Your task to perform on an android device: Do I have any events tomorrow? Image 0: 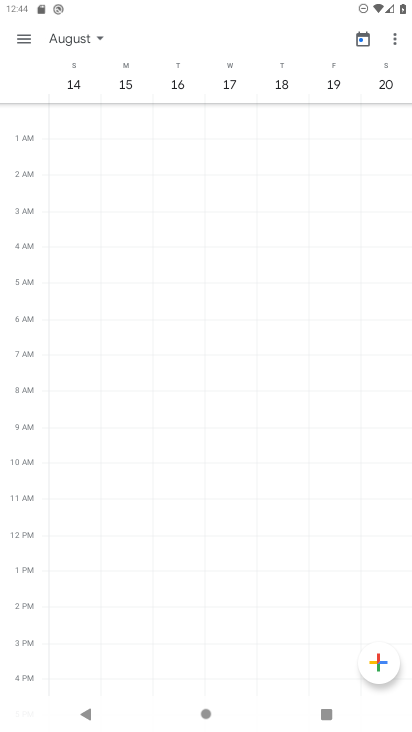
Step 0: press home button
Your task to perform on an android device: Do I have any events tomorrow? Image 1: 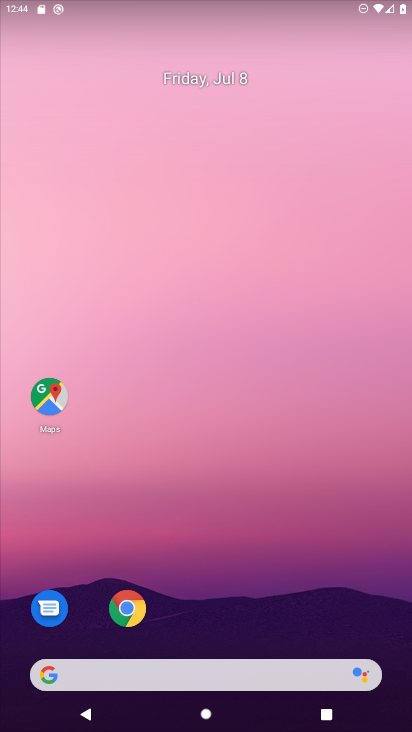
Step 1: drag from (246, 728) to (249, 91)
Your task to perform on an android device: Do I have any events tomorrow? Image 2: 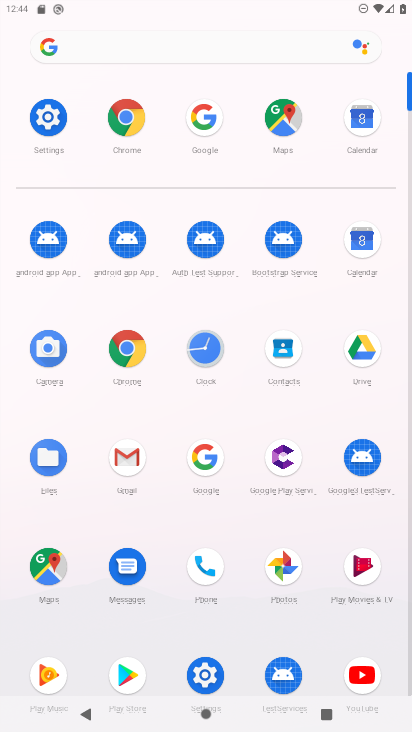
Step 2: click (365, 240)
Your task to perform on an android device: Do I have any events tomorrow? Image 3: 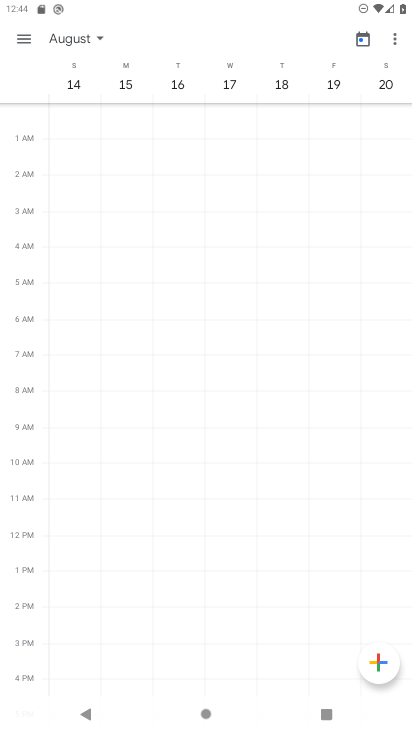
Step 3: click (97, 38)
Your task to perform on an android device: Do I have any events tomorrow? Image 4: 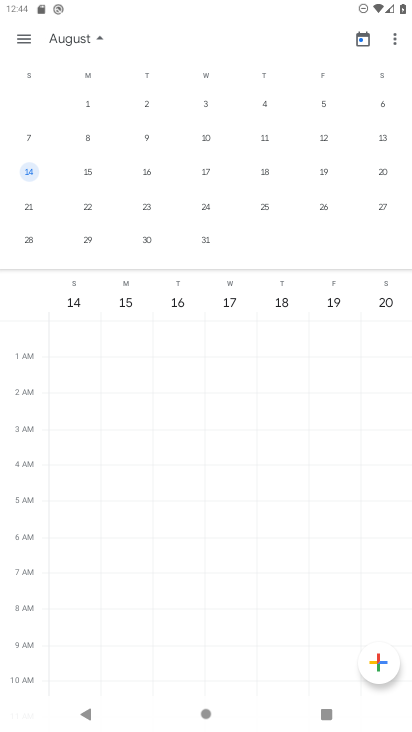
Step 4: drag from (28, 139) to (380, 138)
Your task to perform on an android device: Do I have any events tomorrow? Image 5: 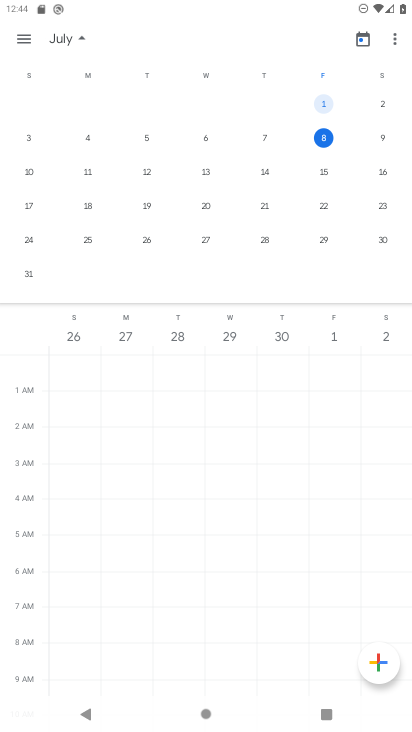
Step 5: click (380, 137)
Your task to perform on an android device: Do I have any events tomorrow? Image 6: 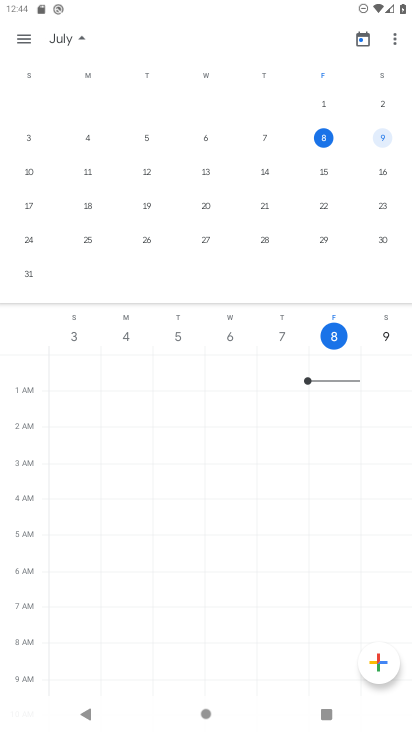
Step 6: click (335, 331)
Your task to perform on an android device: Do I have any events tomorrow? Image 7: 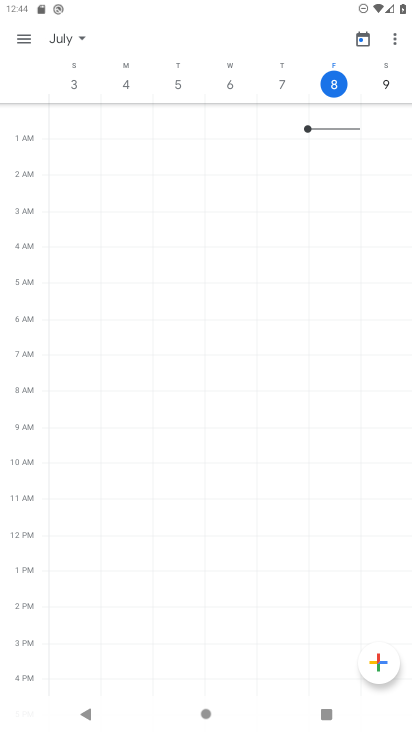
Step 7: click (24, 42)
Your task to perform on an android device: Do I have any events tomorrow? Image 8: 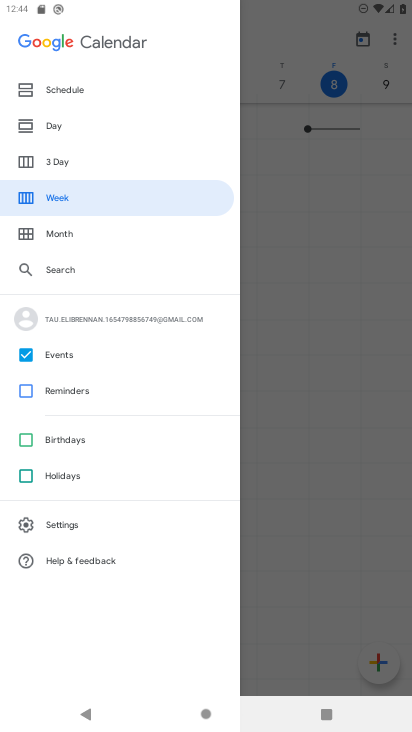
Step 8: click (320, 79)
Your task to perform on an android device: Do I have any events tomorrow? Image 9: 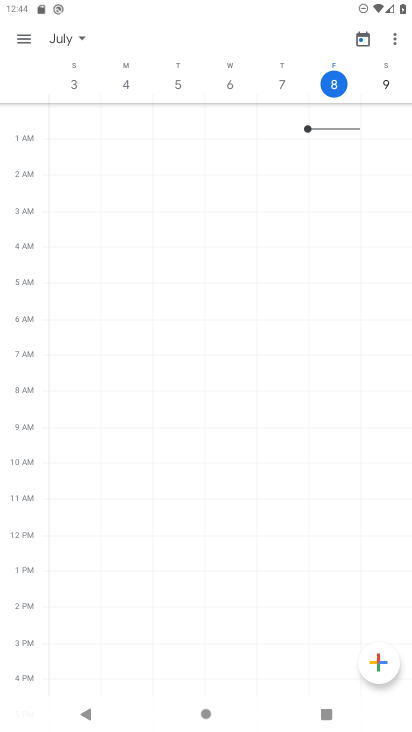
Step 9: task complete